Your task to perform on an android device: Go to accessibility settings Image 0: 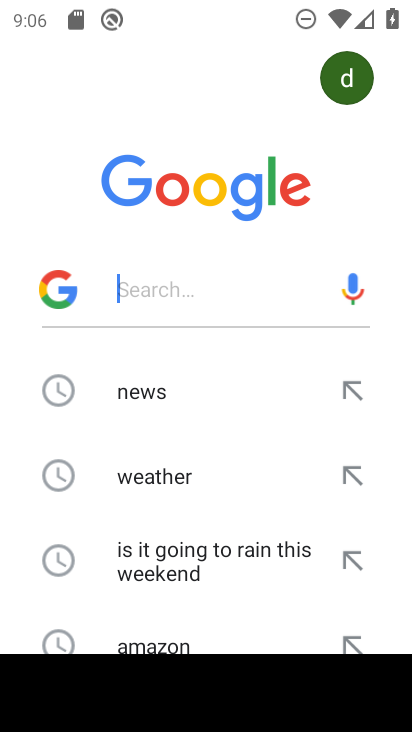
Step 0: press back button
Your task to perform on an android device: Go to accessibility settings Image 1: 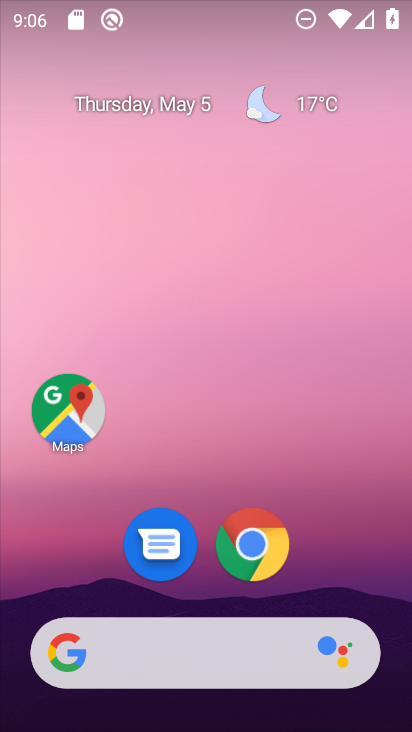
Step 1: drag from (390, 636) to (272, 27)
Your task to perform on an android device: Go to accessibility settings Image 2: 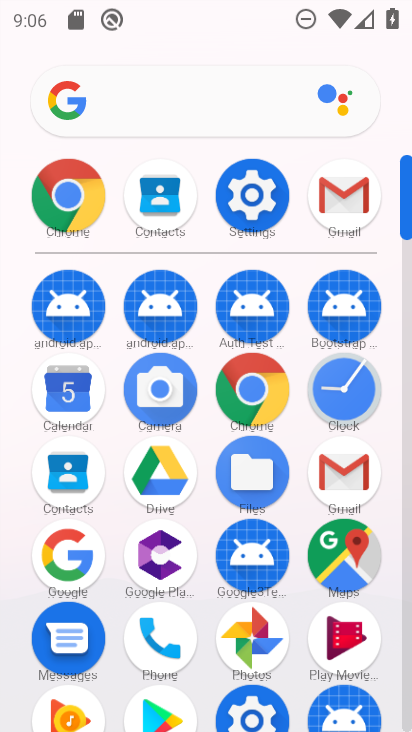
Step 2: click (247, 169)
Your task to perform on an android device: Go to accessibility settings Image 3: 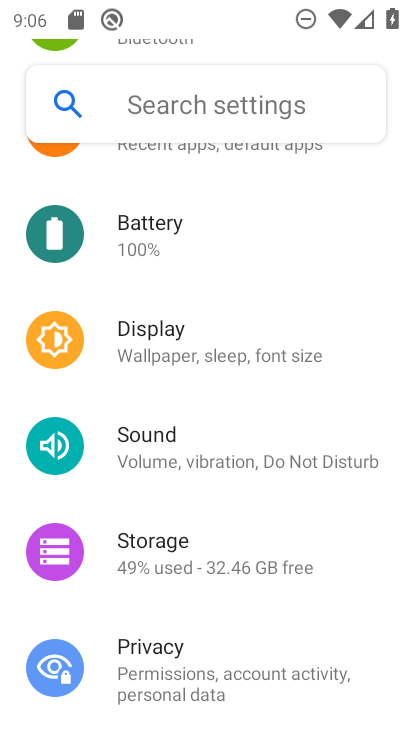
Step 3: drag from (216, 599) to (278, 106)
Your task to perform on an android device: Go to accessibility settings Image 4: 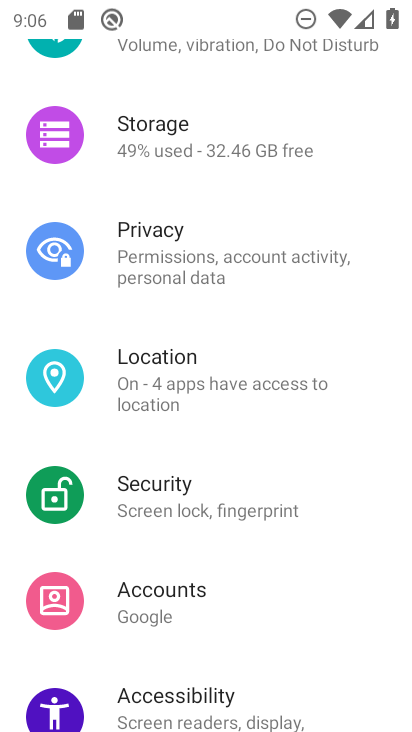
Step 4: click (178, 707)
Your task to perform on an android device: Go to accessibility settings Image 5: 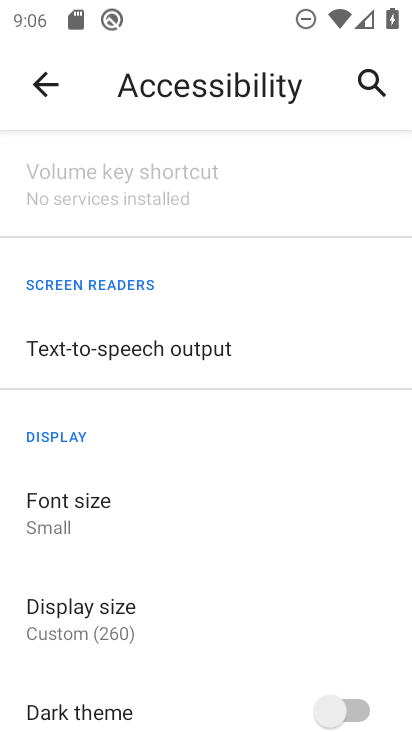
Step 5: task complete